Your task to perform on an android device: check battery use Image 0: 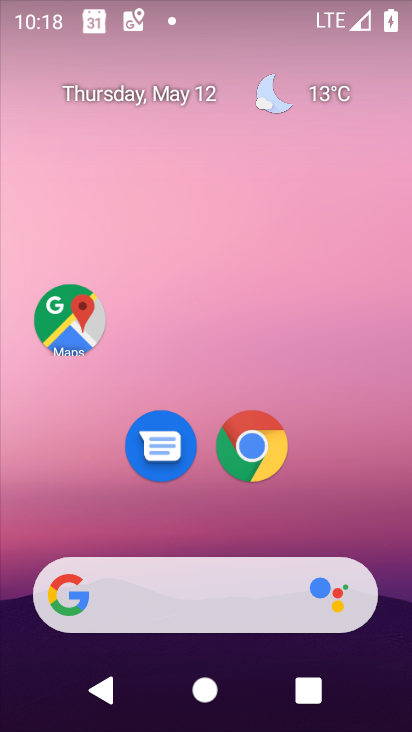
Step 0: drag from (247, 597) to (256, 88)
Your task to perform on an android device: check battery use Image 1: 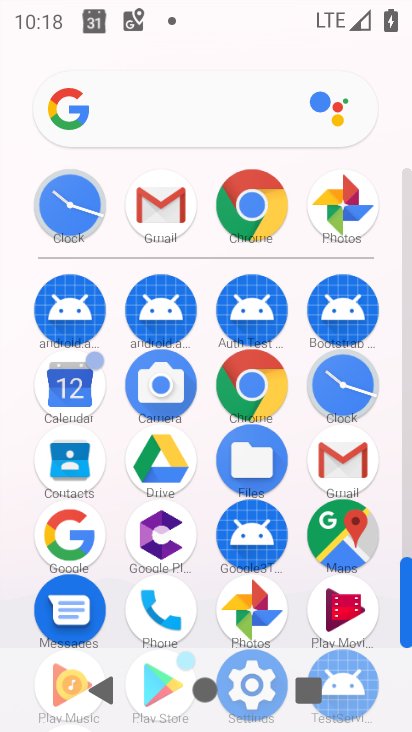
Step 1: drag from (196, 606) to (241, 358)
Your task to perform on an android device: check battery use Image 2: 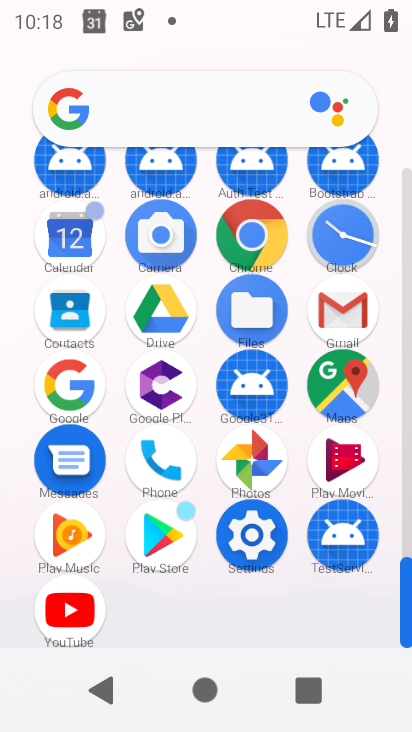
Step 2: click (248, 545)
Your task to perform on an android device: check battery use Image 3: 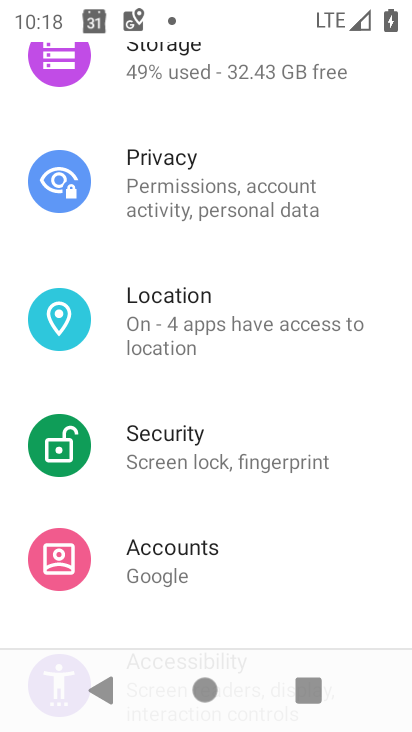
Step 3: drag from (257, 176) to (238, 653)
Your task to perform on an android device: check battery use Image 4: 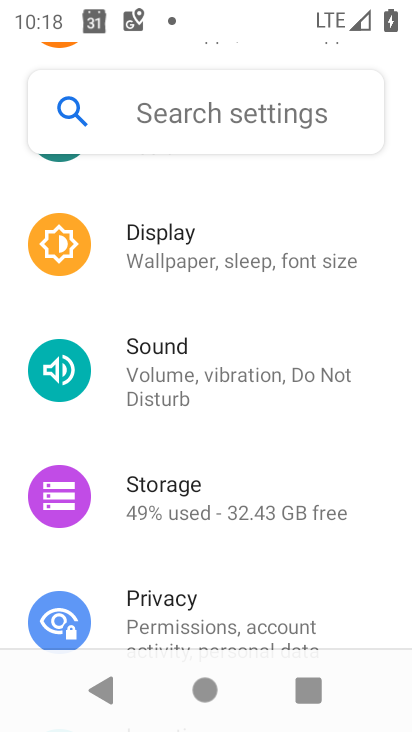
Step 4: drag from (274, 273) to (248, 627)
Your task to perform on an android device: check battery use Image 5: 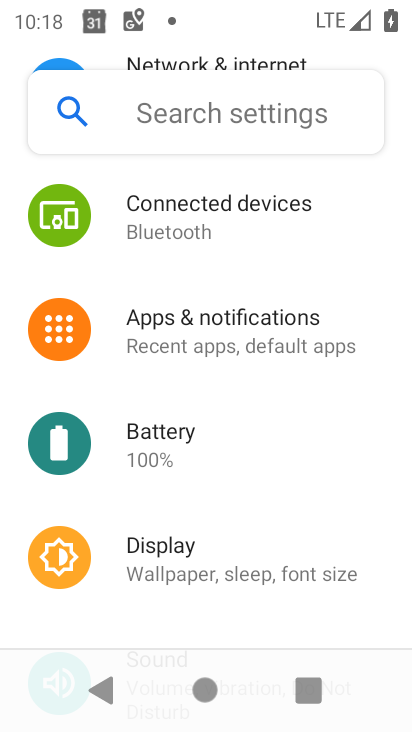
Step 5: click (183, 459)
Your task to perform on an android device: check battery use Image 6: 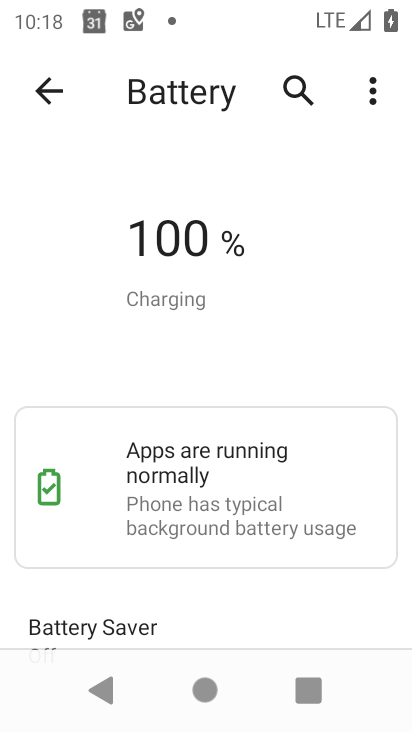
Step 6: task complete